Your task to perform on an android device: turn off location Image 0: 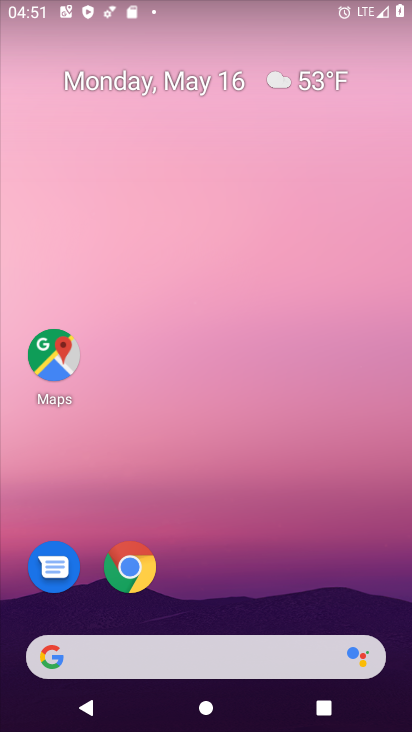
Step 0: drag from (213, 665) to (216, 2)
Your task to perform on an android device: turn off location Image 1: 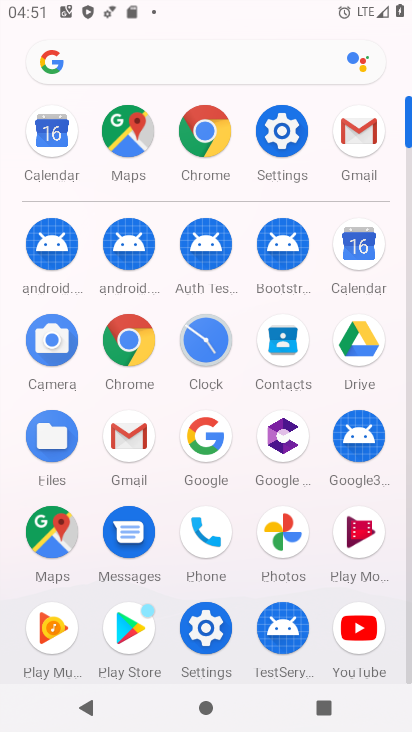
Step 1: click (296, 124)
Your task to perform on an android device: turn off location Image 2: 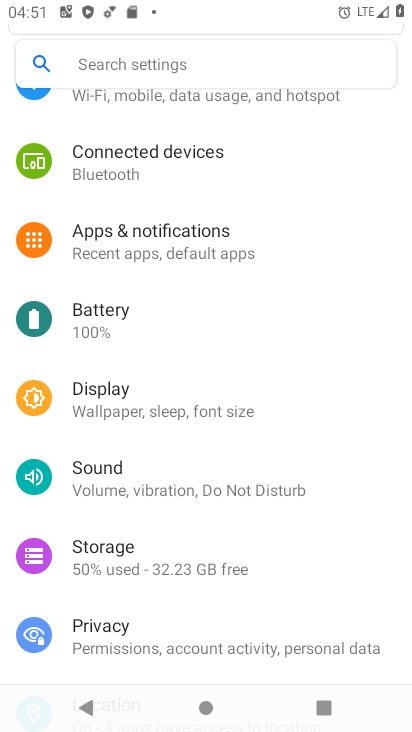
Step 2: drag from (156, 212) to (240, 572)
Your task to perform on an android device: turn off location Image 3: 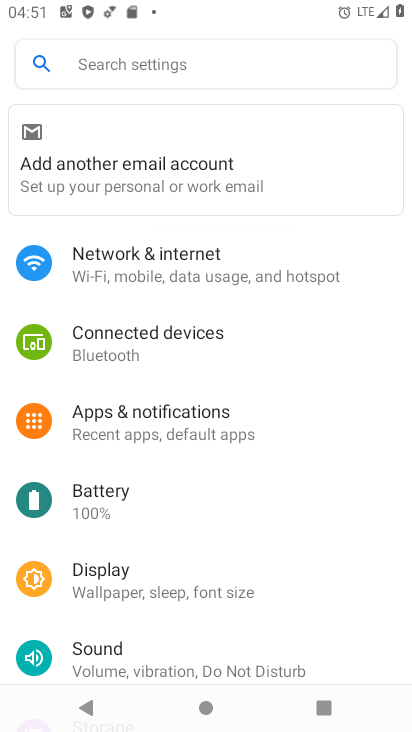
Step 3: drag from (233, 495) to (227, 50)
Your task to perform on an android device: turn off location Image 4: 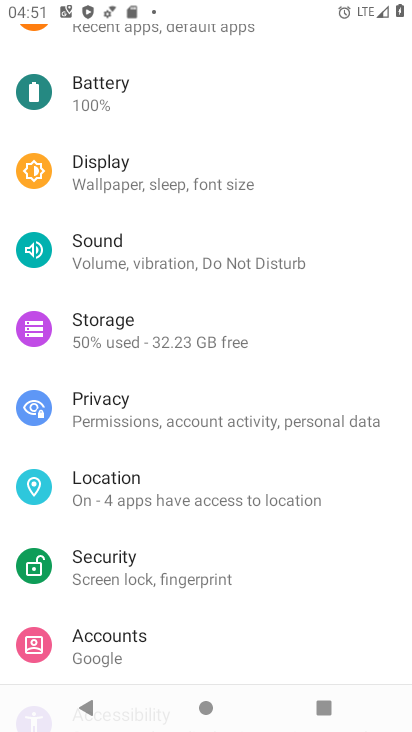
Step 4: click (157, 480)
Your task to perform on an android device: turn off location Image 5: 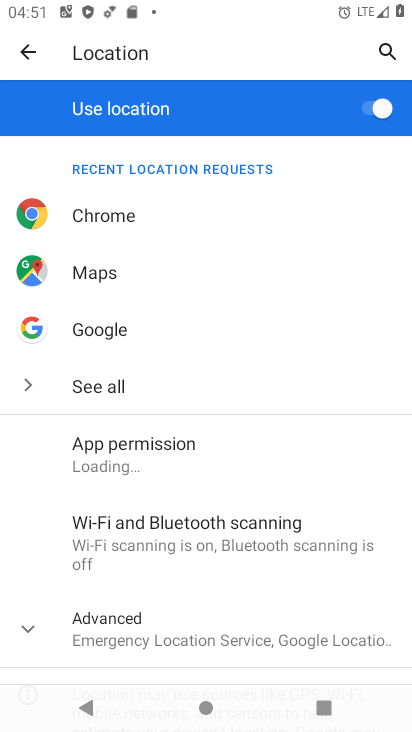
Step 5: click (368, 114)
Your task to perform on an android device: turn off location Image 6: 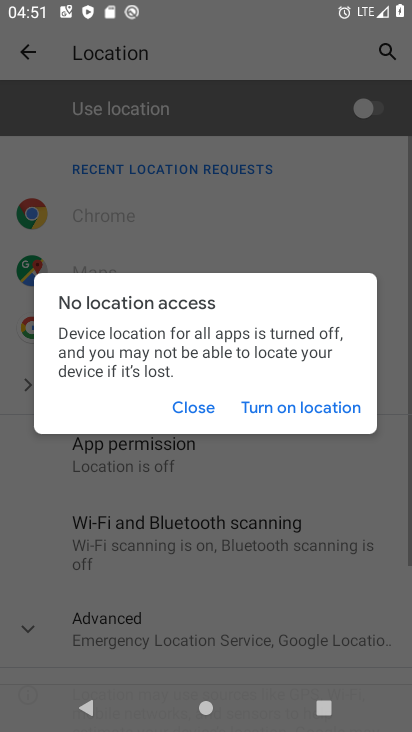
Step 6: task complete